Your task to perform on an android device: turn on improve location accuracy Image 0: 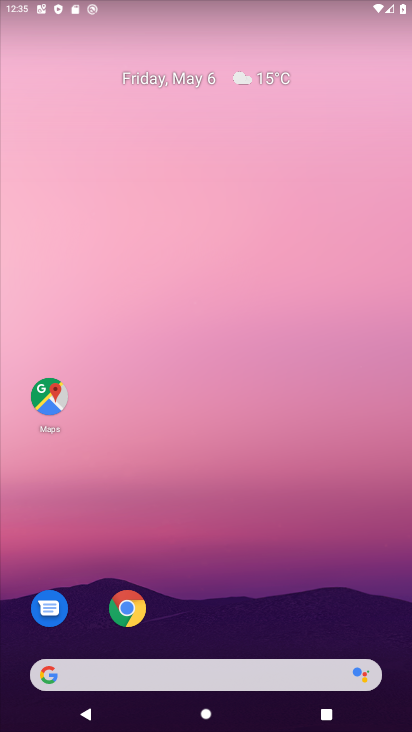
Step 0: drag from (247, 627) to (247, 199)
Your task to perform on an android device: turn on improve location accuracy Image 1: 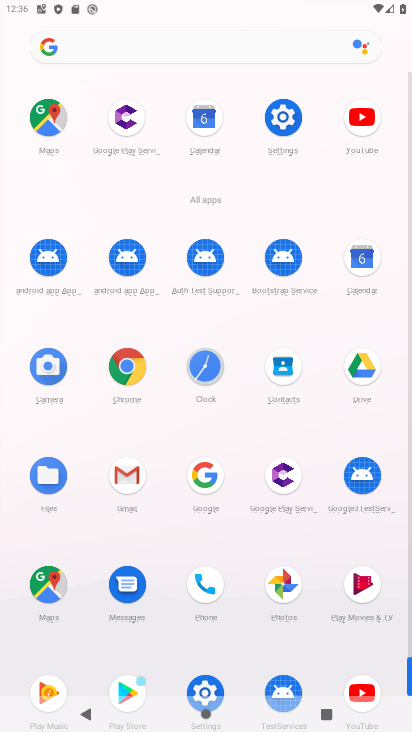
Step 1: click (285, 110)
Your task to perform on an android device: turn on improve location accuracy Image 2: 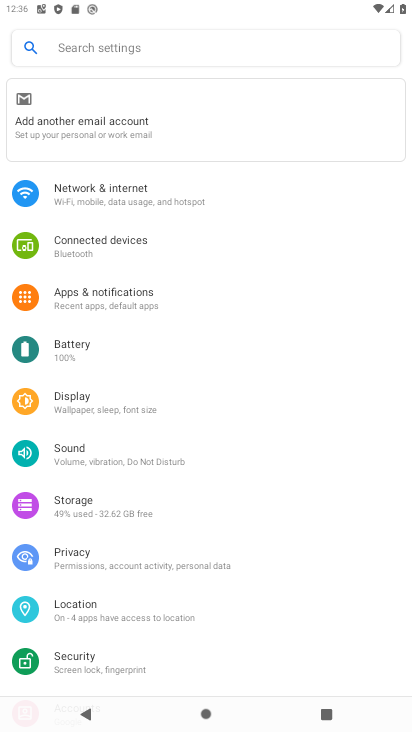
Step 2: drag from (192, 620) to (199, 322)
Your task to perform on an android device: turn on improve location accuracy Image 3: 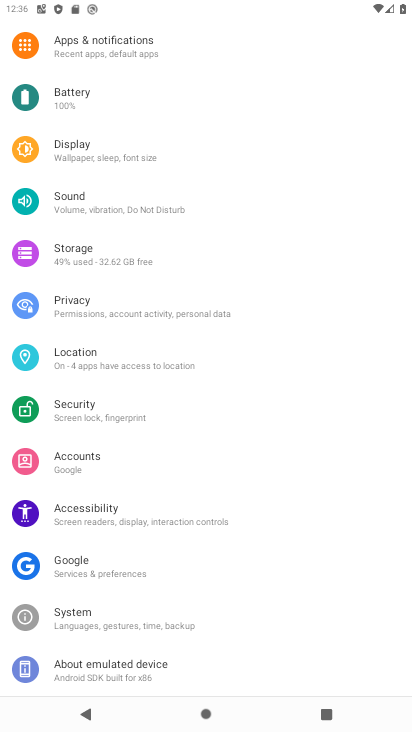
Step 3: click (137, 363)
Your task to perform on an android device: turn on improve location accuracy Image 4: 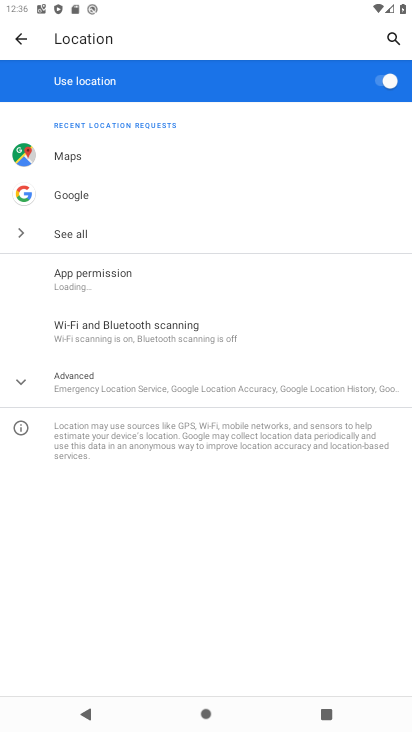
Step 4: click (146, 394)
Your task to perform on an android device: turn on improve location accuracy Image 5: 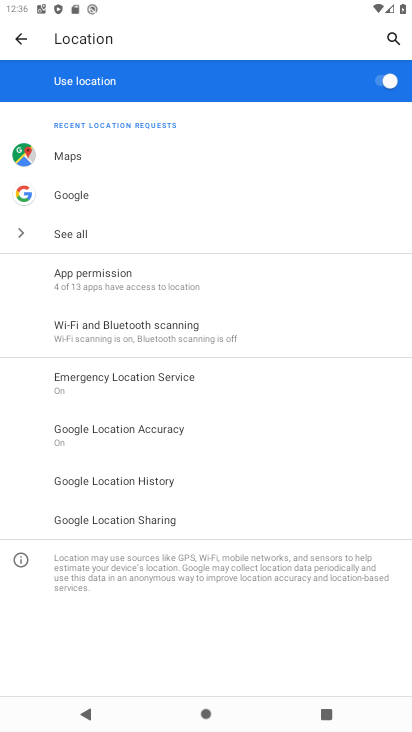
Step 5: click (201, 438)
Your task to perform on an android device: turn on improve location accuracy Image 6: 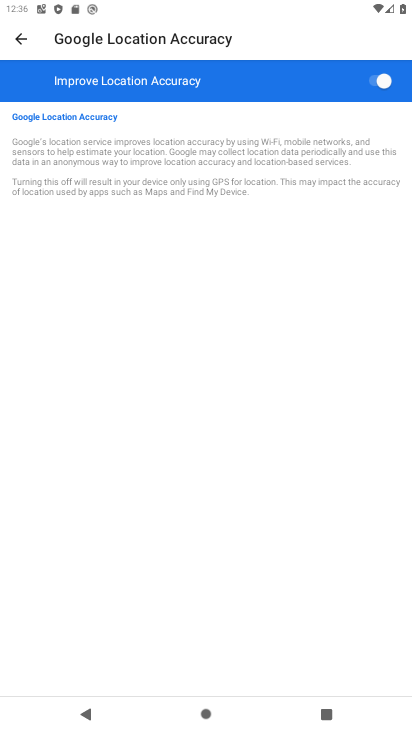
Step 6: task complete